Your task to perform on an android device: Search for Mexican restaurants on Maps Image 0: 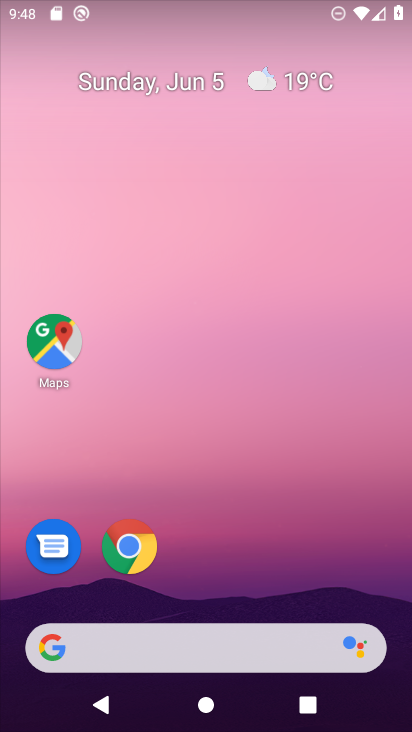
Step 0: click (49, 332)
Your task to perform on an android device: Search for Mexican restaurants on Maps Image 1: 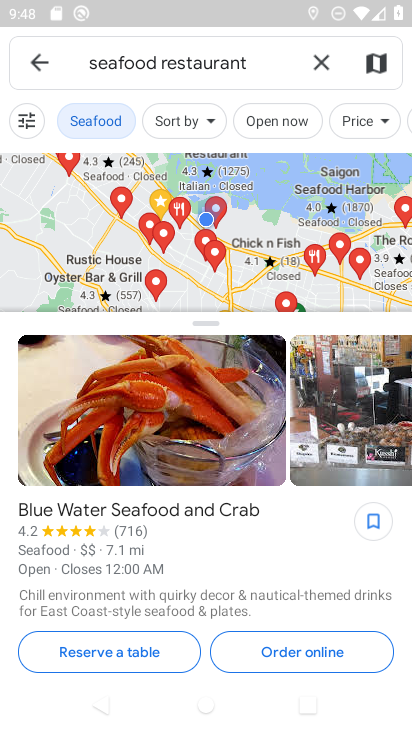
Step 1: click (309, 59)
Your task to perform on an android device: Search for Mexican restaurants on Maps Image 2: 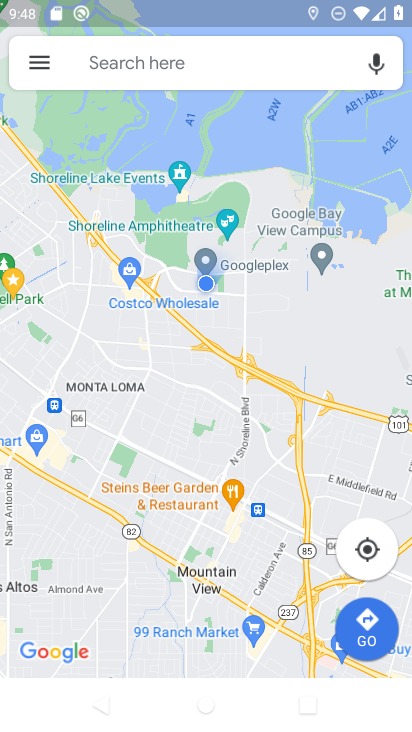
Step 2: click (309, 59)
Your task to perform on an android device: Search for Mexican restaurants on Maps Image 3: 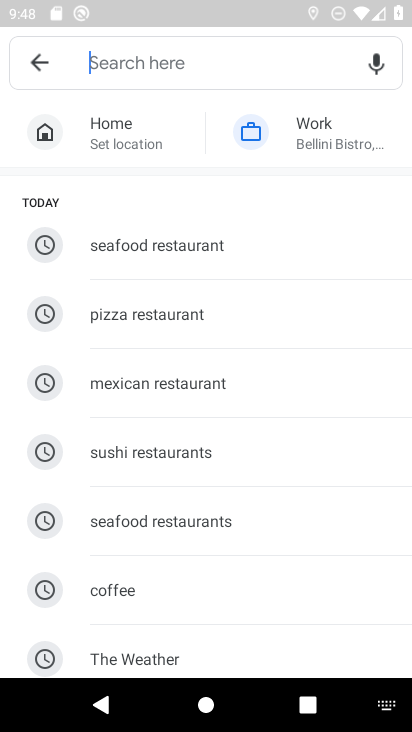
Step 3: click (144, 385)
Your task to perform on an android device: Search for Mexican restaurants on Maps Image 4: 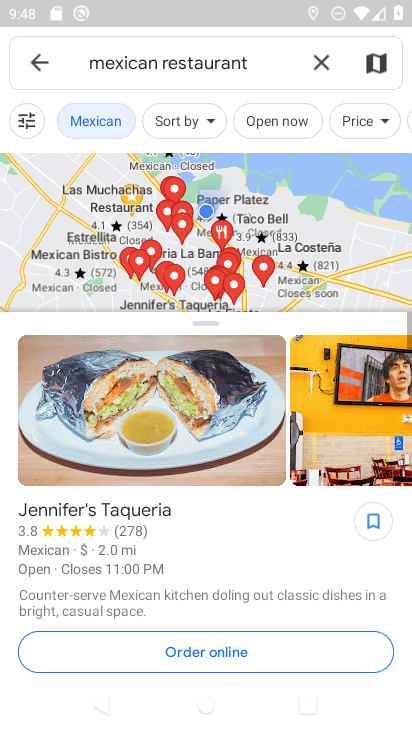
Step 4: task complete